Your task to perform on an android device: Search for sushi restaurants on Maps Image 0: 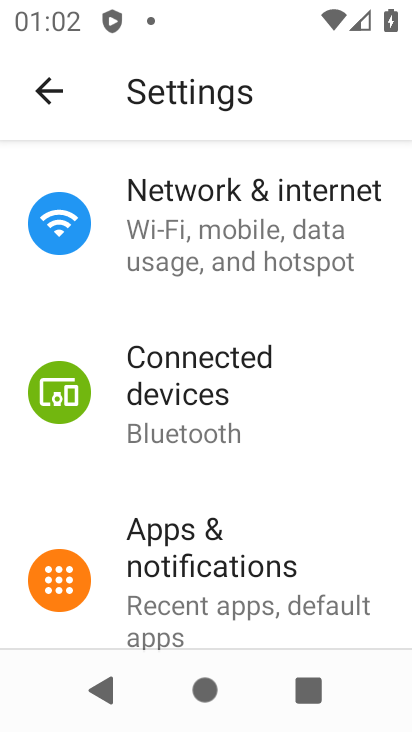
Step 0: press home button
Your task to perform on an android device: Search for sushi restaurants on Maps Image 1: 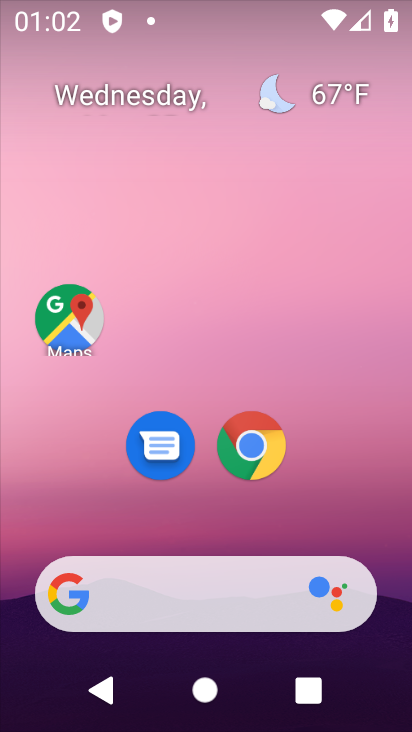
Step 1: click (75, 310)
Your task to perform on an android device: Search for sushi restaurants on Maps Image 2: 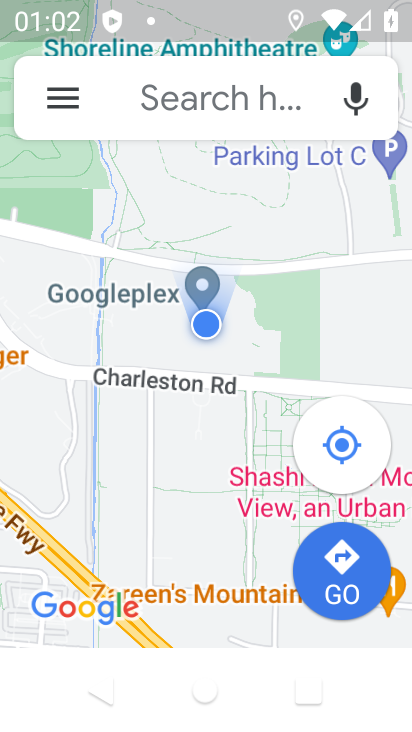
Step 2: click (175, 109)
Your task to perform on an android device: Search for sushi restaurants on Maps Image 3: 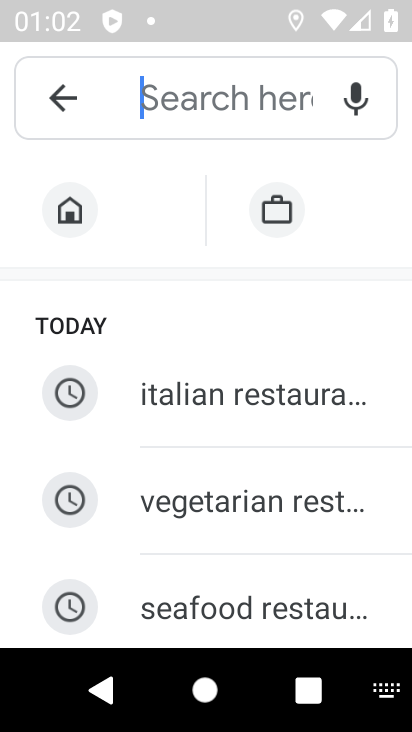
Step 3: drag from (234, 570) to (234, 302)
Your task to perform on an android device: Search for sushi restaurants on Maps Image 4: 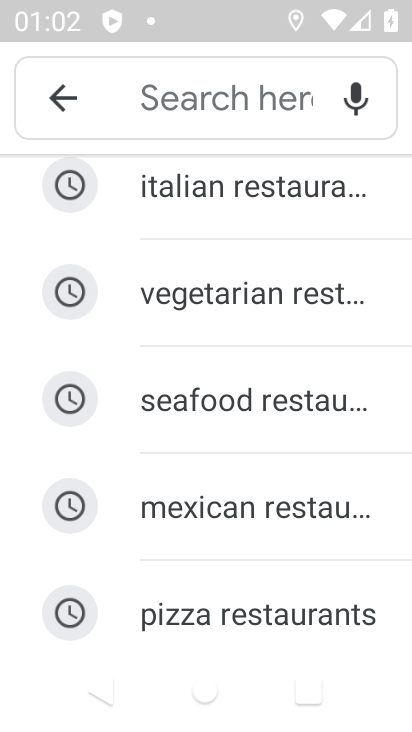
Step 4: drag from (254, 564) to (227, 268)
Your task to perform on an android device: Search for sushi restaurants on Maps Image 5: 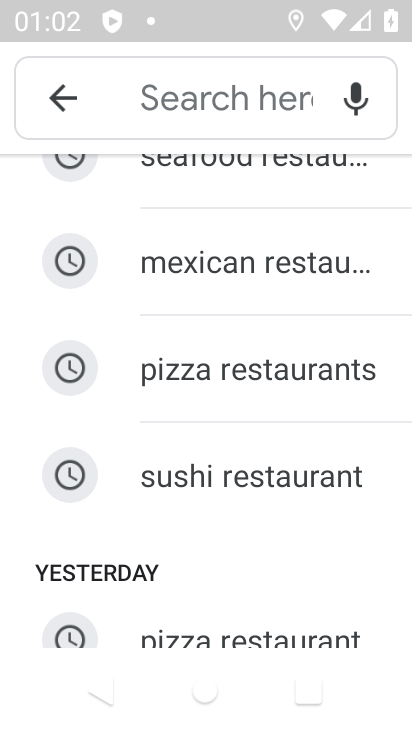
Step 5: click (262, 472)
Your task to perform on an android device: Search for sushi restaurants on Maps Image 6: 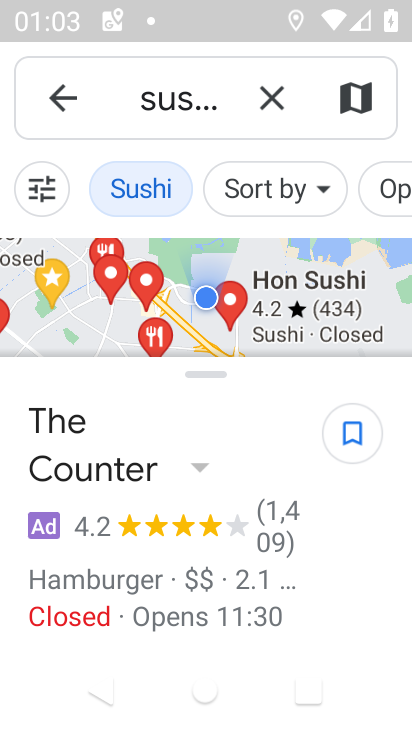
Step 6: task complete